Your task to perform on an android device: Go to internet settings Image 0: 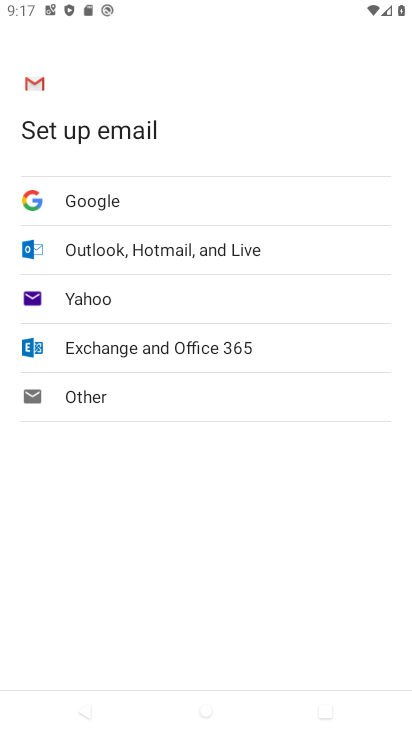
Step 0: press home button
Your task to perform on an android device: Go to internet settings Image 1: 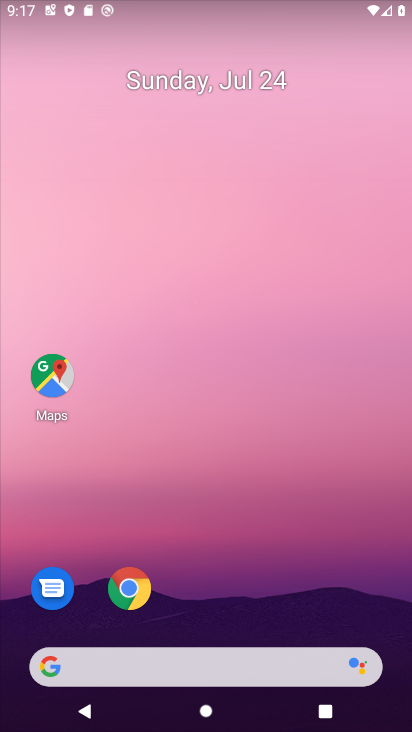
Step 1: drag from (210, 630) to (225, 0)
Your task to perform on an android device: Go to internet settings Image 2: 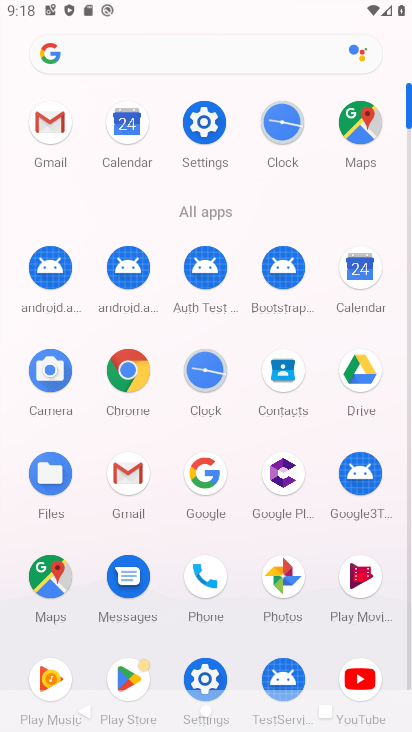
Step 2: click (203, 126)
Your task to perform on an android device: Go to internet settings Image 3: 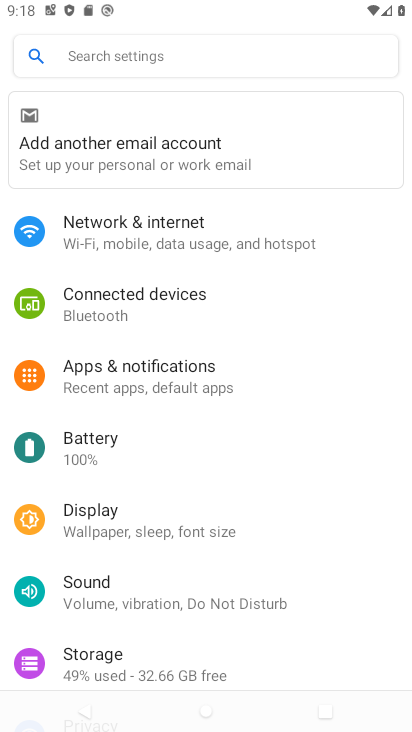
Step 3: click (154, 241)
Your task to perform on an android device: Go to internet settings Image 4: 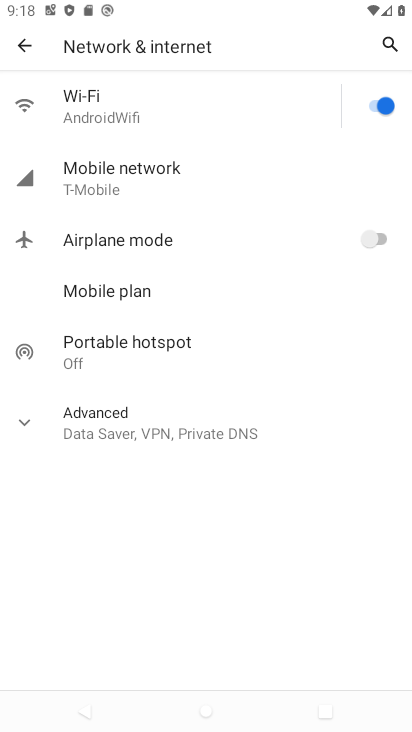
Step 4: click (22, 423)
Your task to perform on an android device: Go to internet settings Image 5: 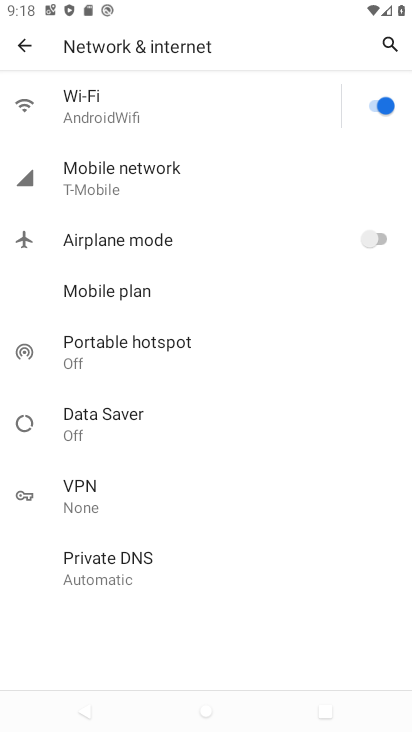
Step 5: task complete